Your task to perform on an android device: install app "Roku - Official Remote Control" Image 0: 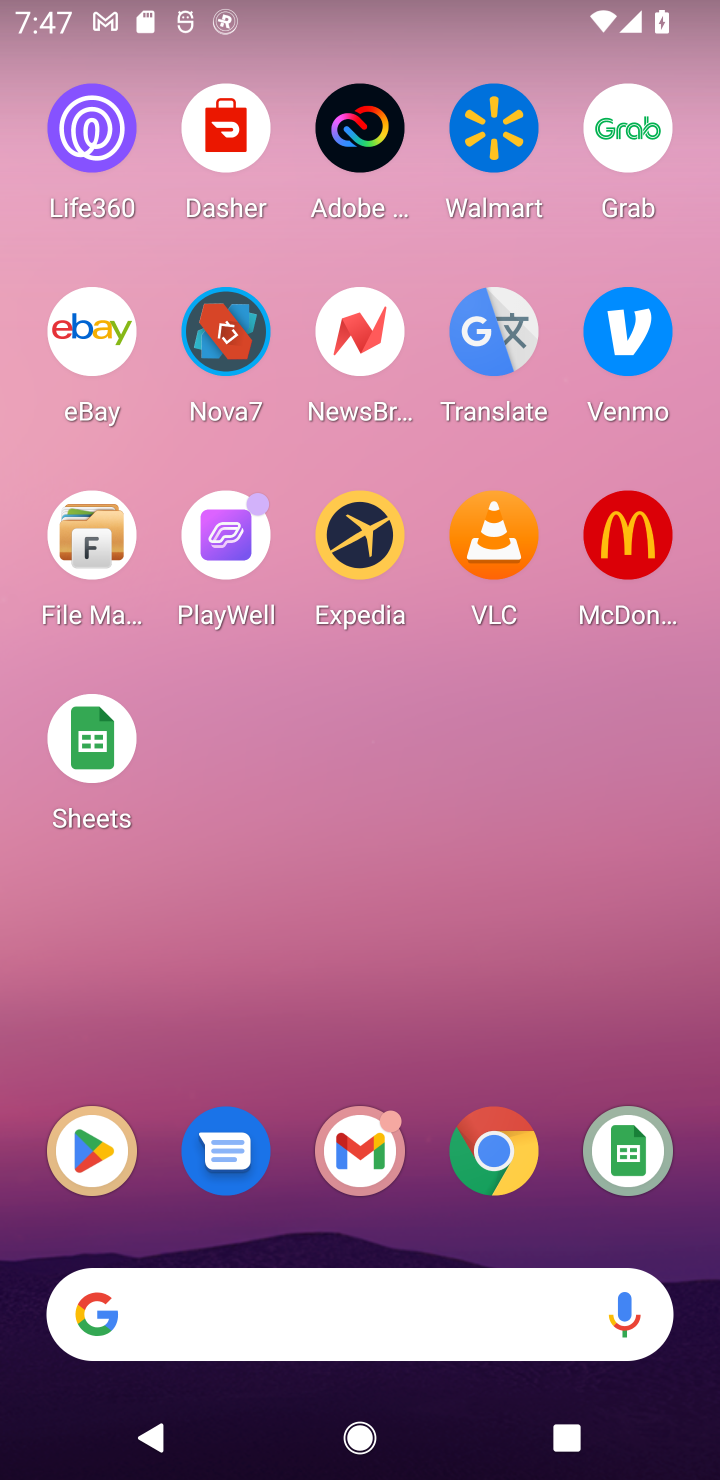
Step 0: click (74, 1165)
Your task to perform on an android device: install app "Roku - Official Remote Control" Image 1: 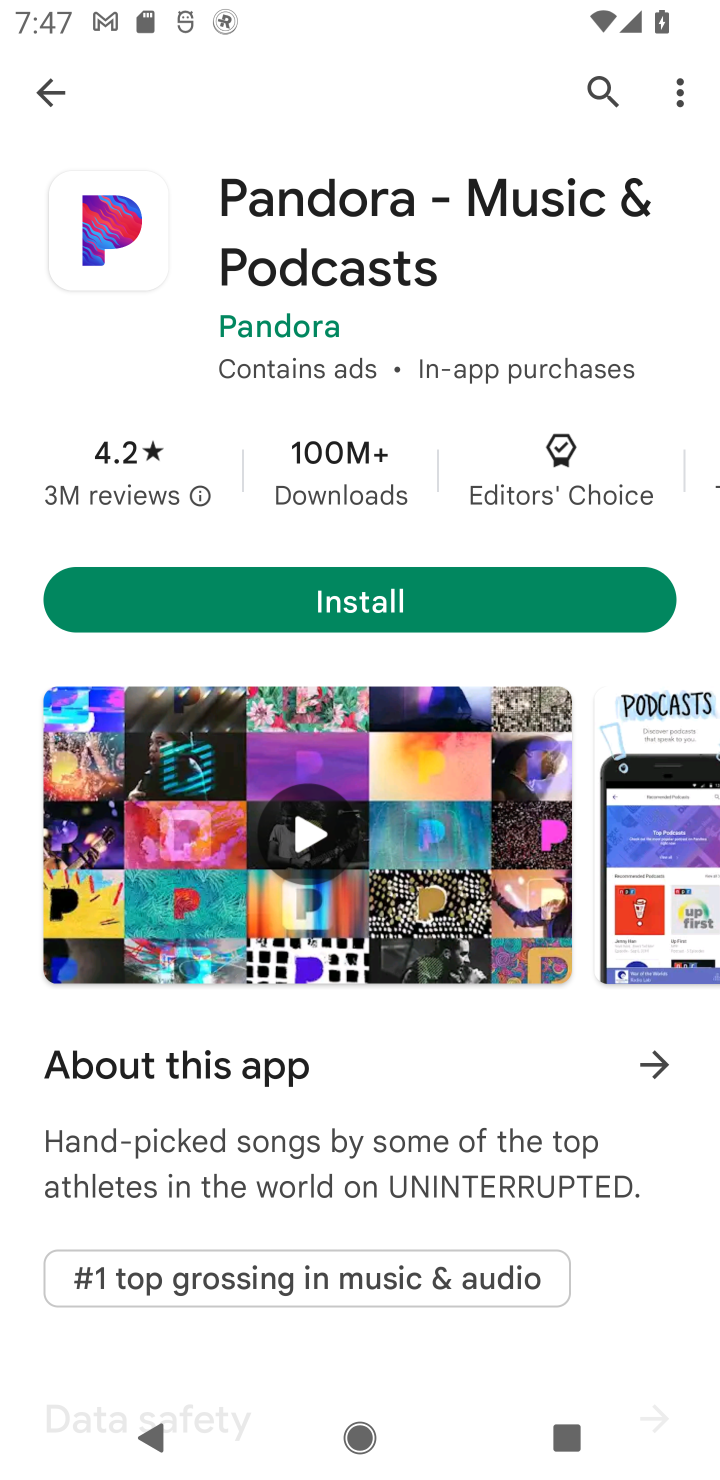
Step 1: click (596, 105)
Your task to perform on an android device: install app "Roku - Official Remote Control" Image 2: 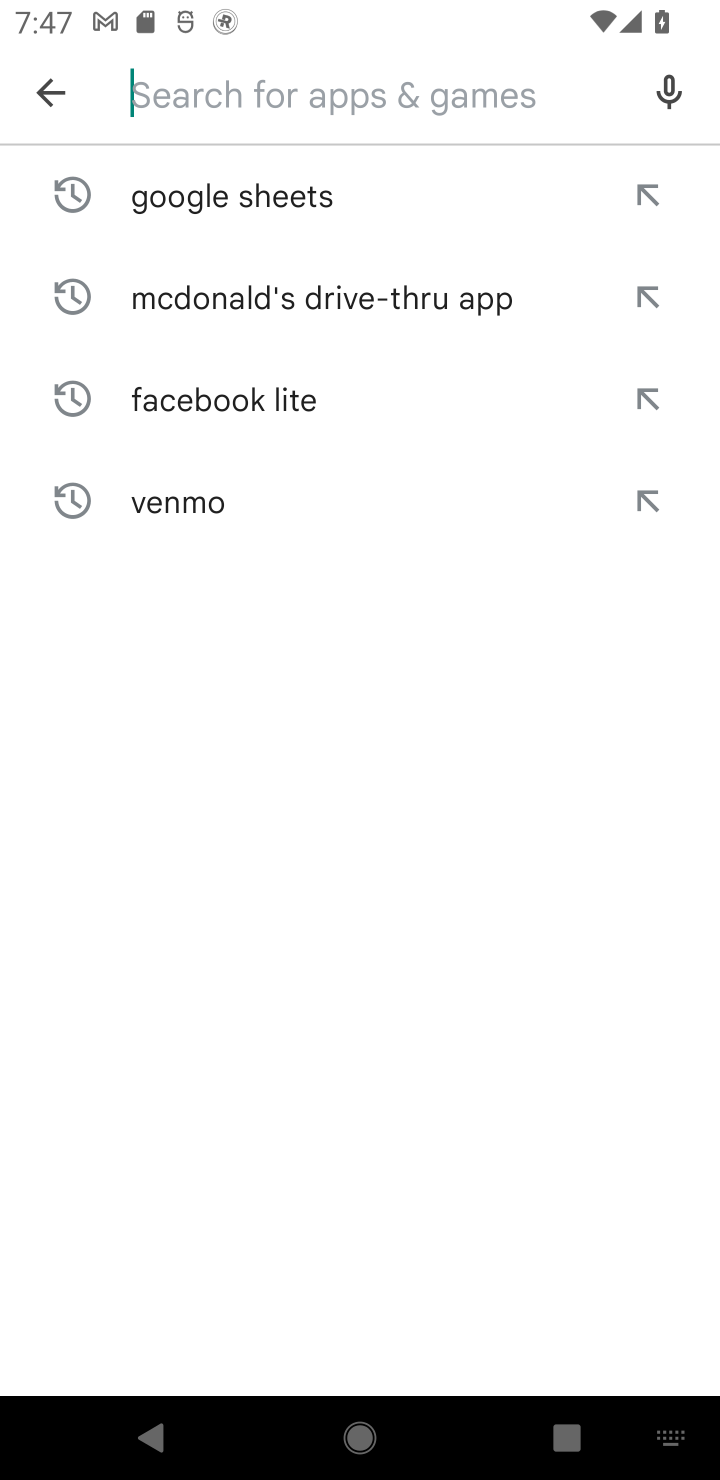
Step 2: type "Roku - Official Remote Control"
Your task to perform on an android device: install app "Roku - Official Remote Control" Image 3: 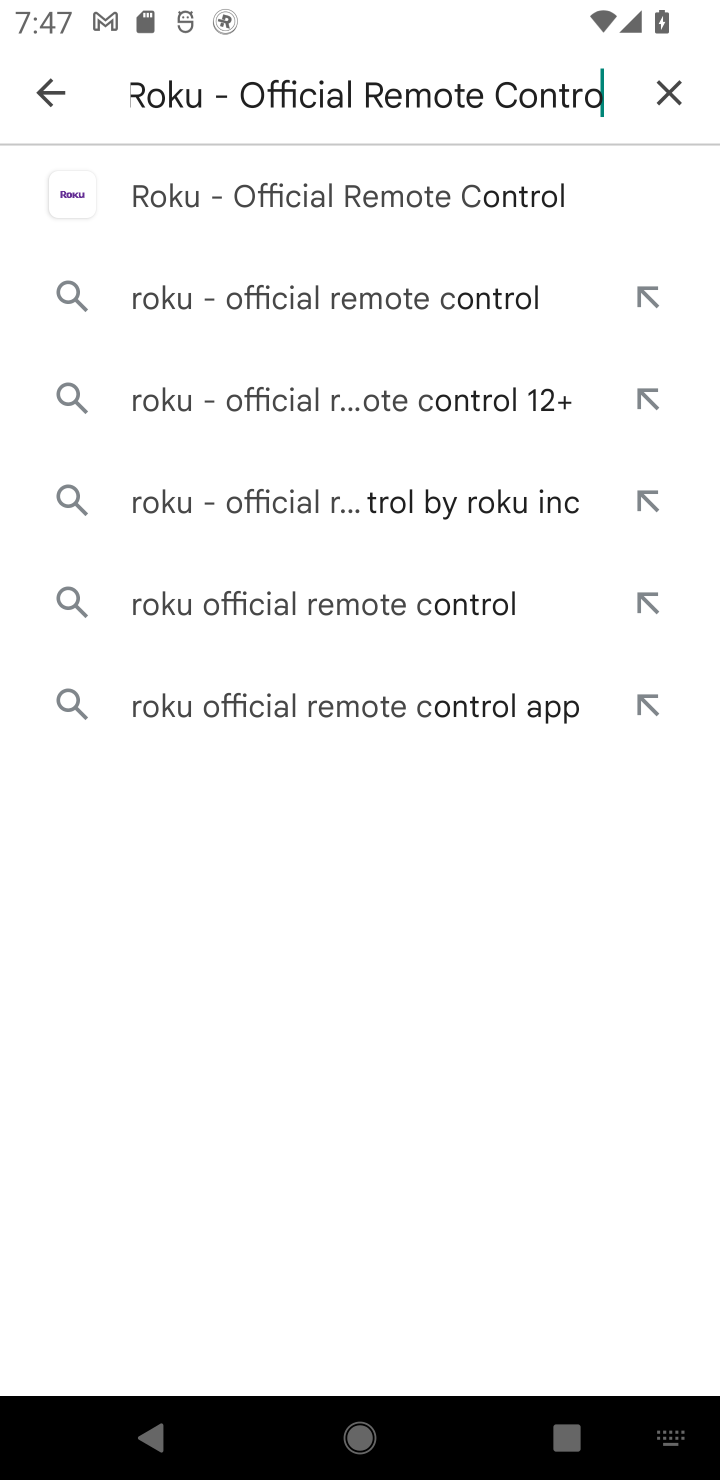
Step 3: type ""
Your task to perform on an android device: install app "Roku - Official Remote Control" Image 4: 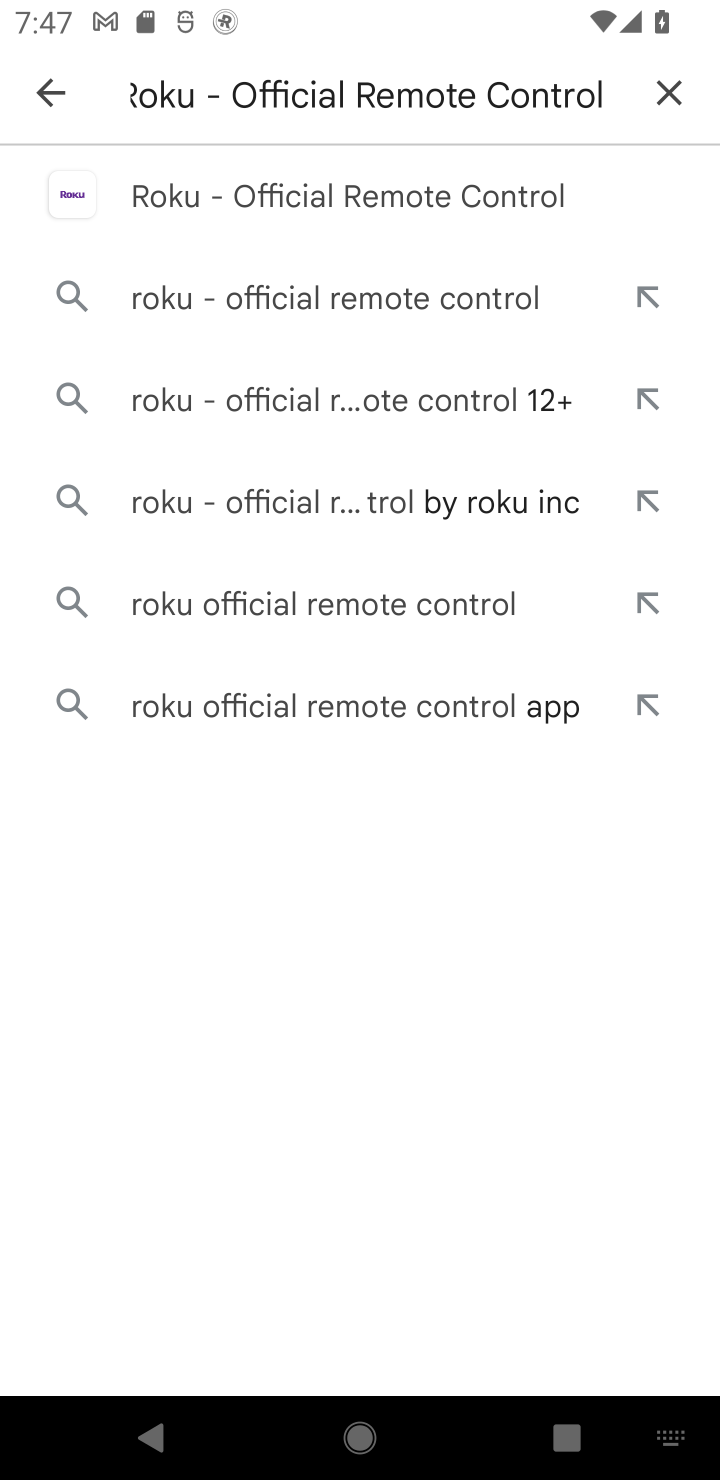
Step 4: click (284, 208)
Your task to perform on an android device: install app "Roku - Official Remote Control" Image 5: 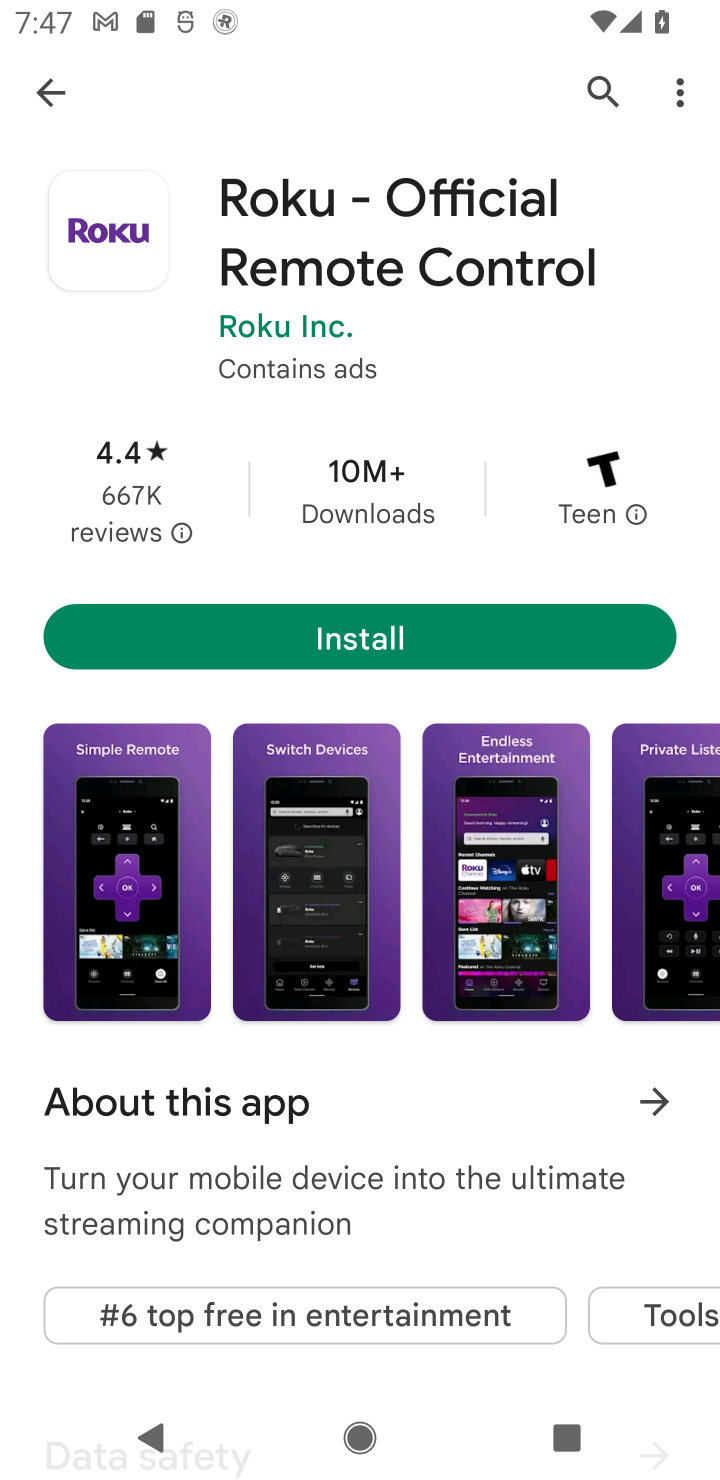
Step 5: click (534, 640)
Your task to perform on an android device: install app "Roku - Official Remote Control" Image 6: 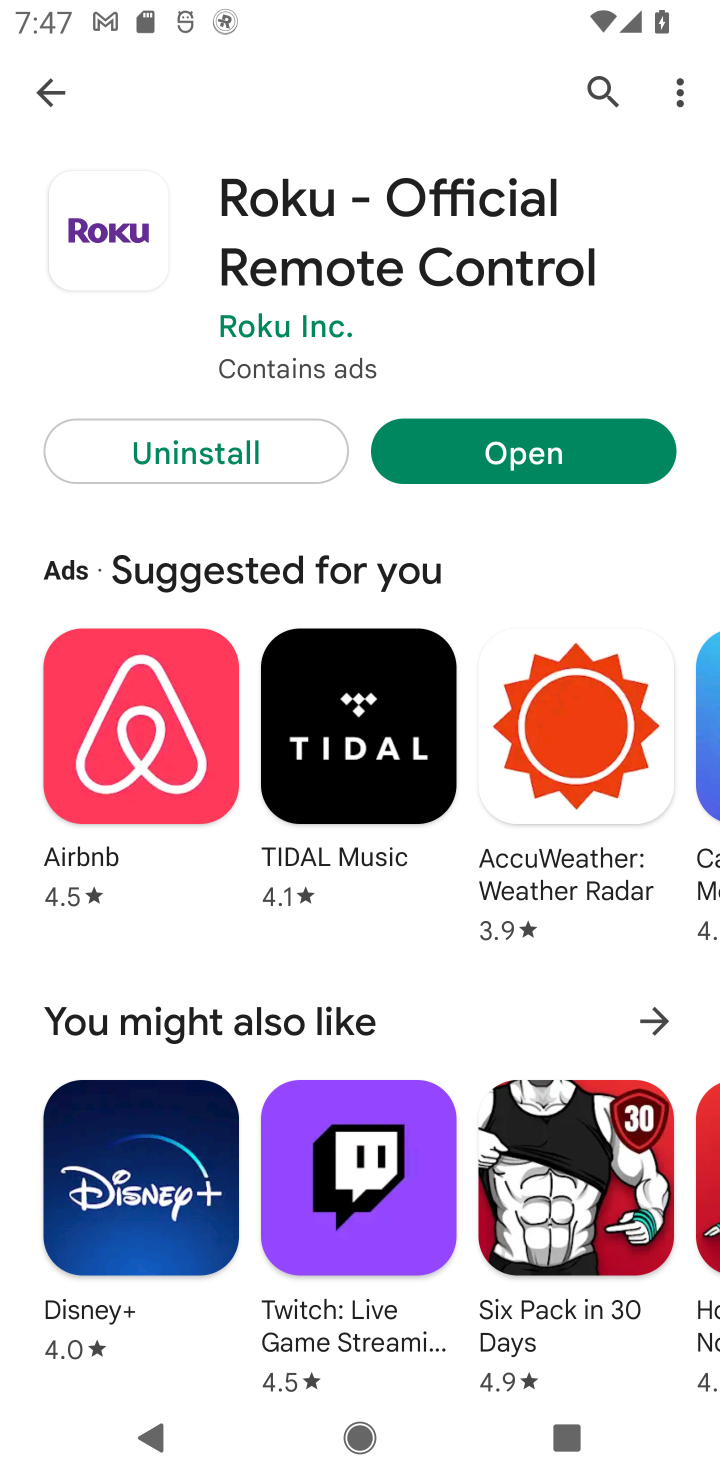
Step 6: task complete